Your task to perform on an android device: Go to accessibility settings Image 0: 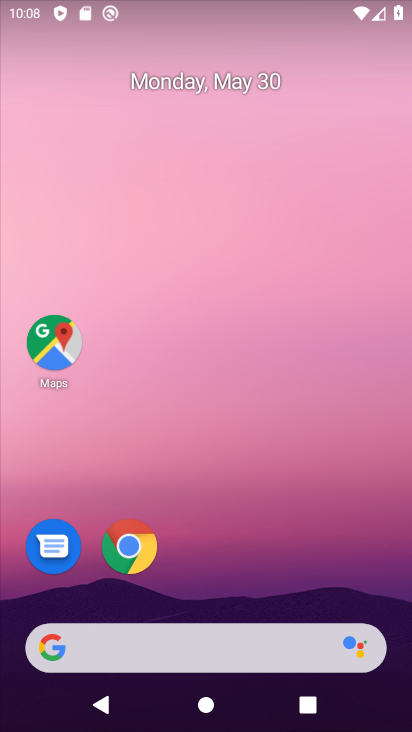
Step 0: drag from (215, 508) to (208, 105)
Your task to perform on an android device: Go to accessibility settings Image 1: 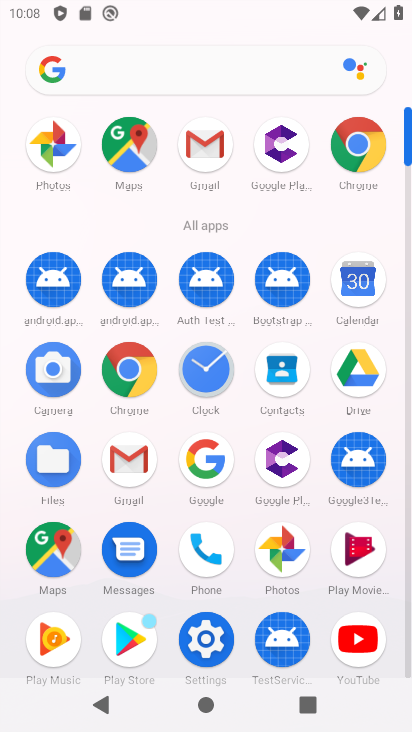
Step 1: click (202, 629)
Your task to perform on an android device: Go to accessibility settings Image 2: 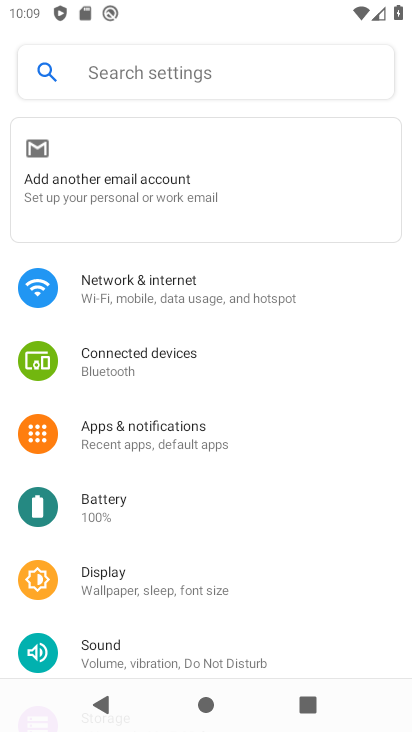
Step 2: drag from (241, 631) to (264, 166)
Your task to perform on an android device: Go to accessibility settings Image 3: 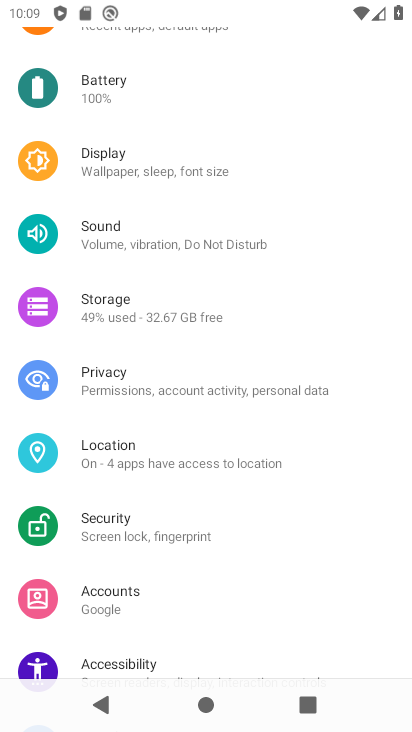
Step 3: click (194, 659)
Your task to perform on an android device: Go to accessibility settings Image 4: 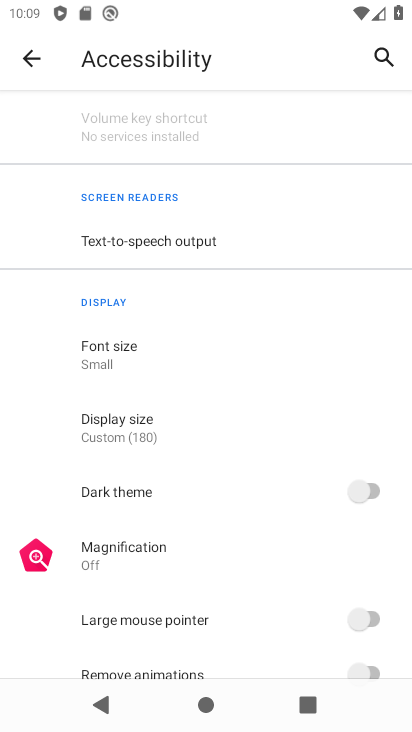
Step 4: task complete